Your task to perform on an android device: What is the news today? Image 0: 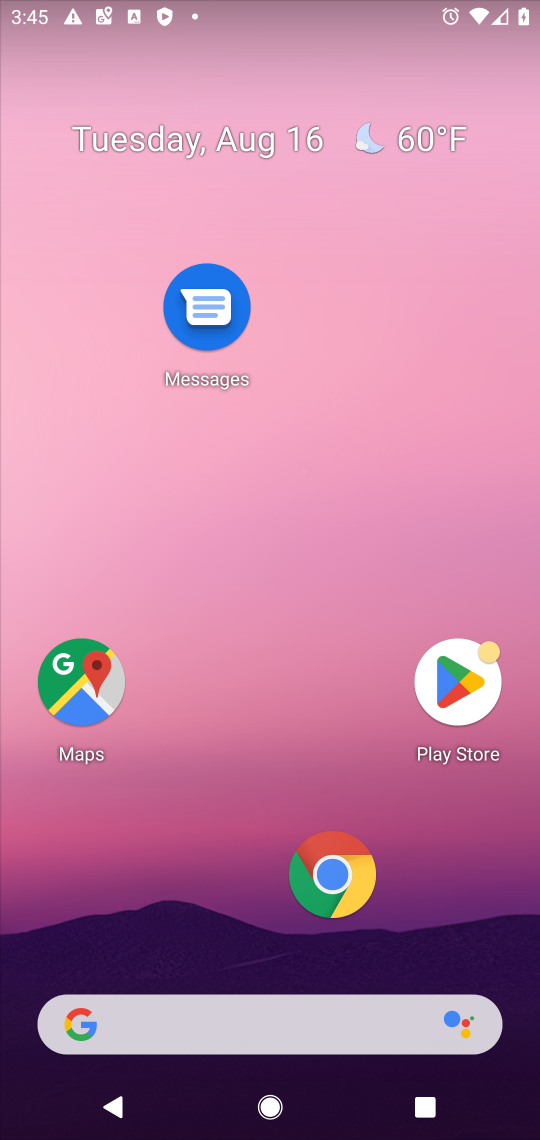
Step 0: click (210, 1035)
Your task to perform on an android device: What is the news today? Image 1: 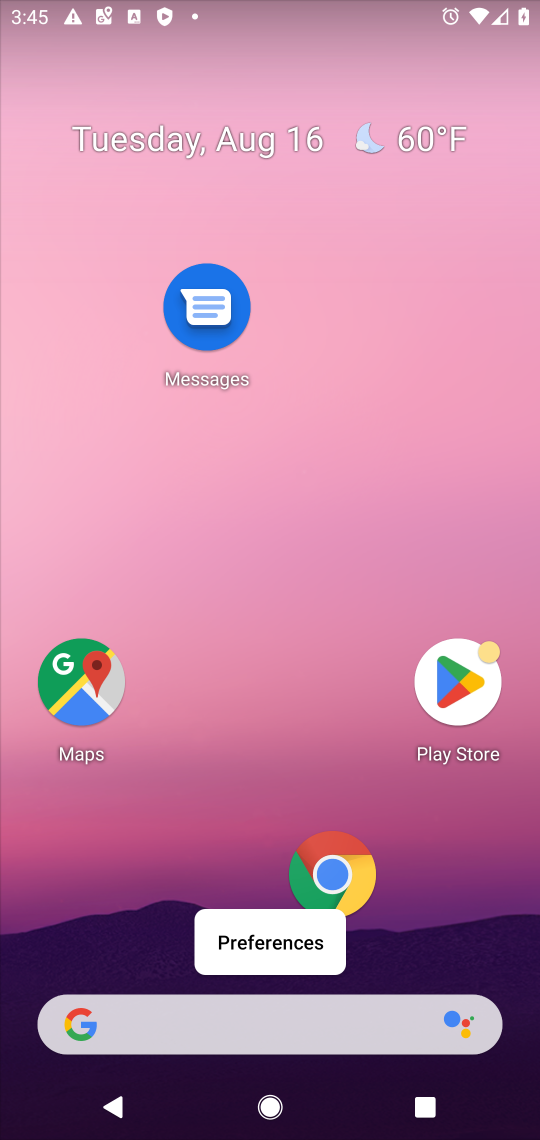
Step 1: click (87, 1025)
Your task to perform on an android device: What is the news today? Image 2: 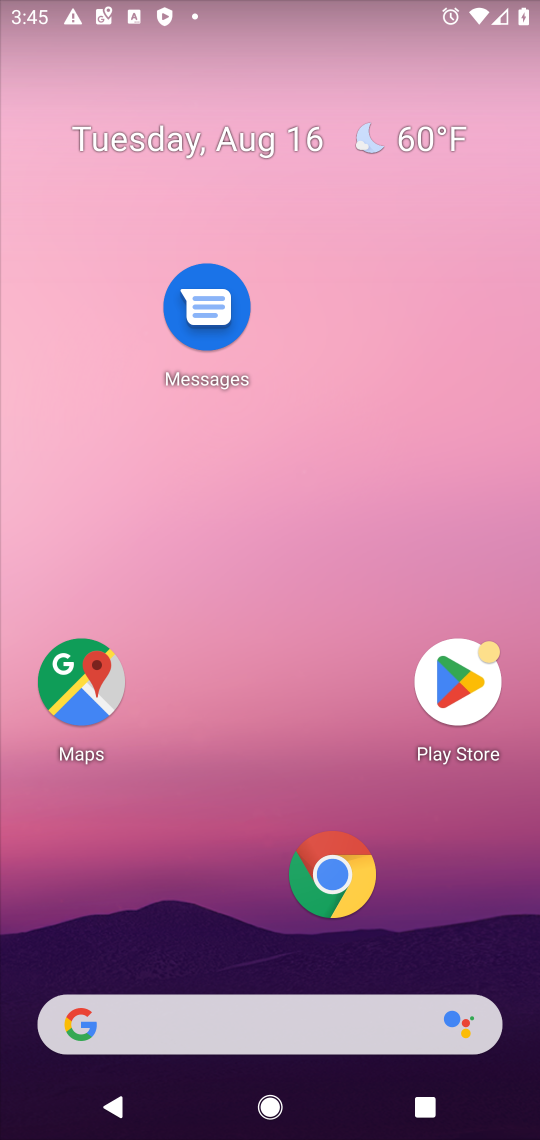
Step 2: click (87, 1025)
Your task to perform on an android device: What is the news today? Image 3: 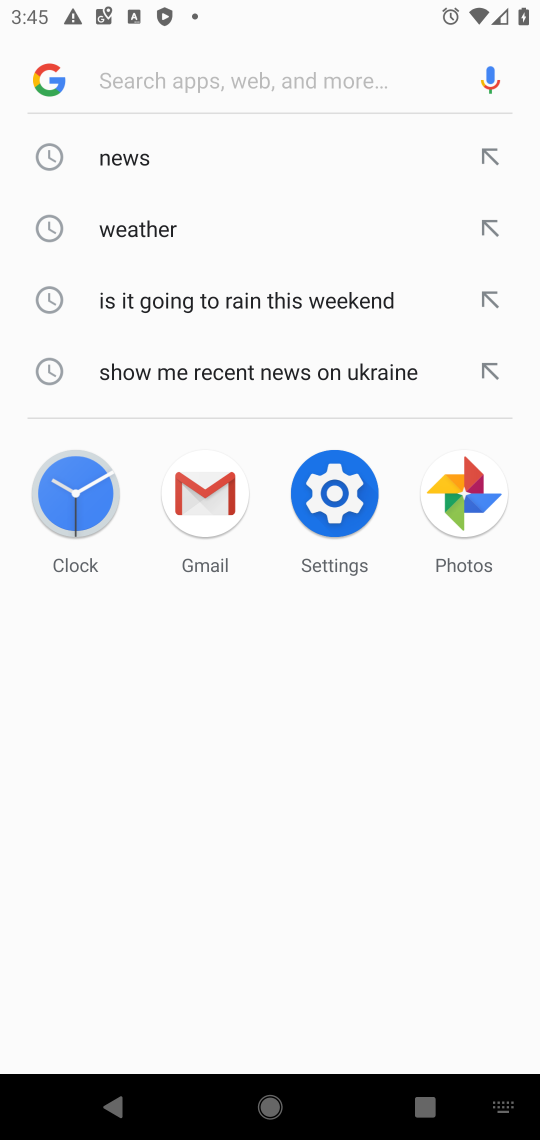
Step 3: click (193, 170)
Your task to perform on an android device: What is the news today? Image 4: 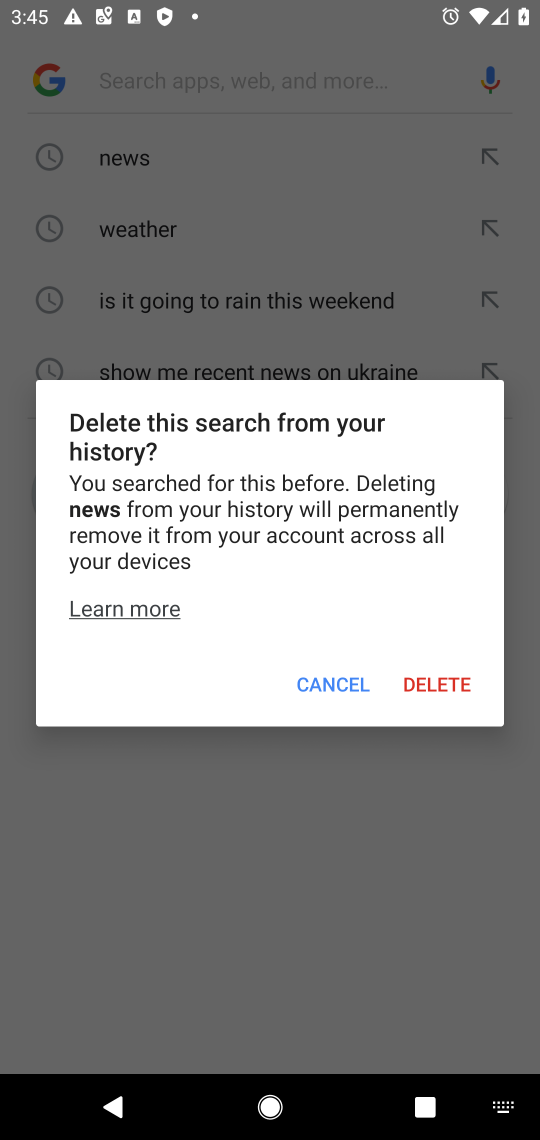
Step 4: click (346, 685)
Your task to perform on an android device: What is the news today? Image 5: 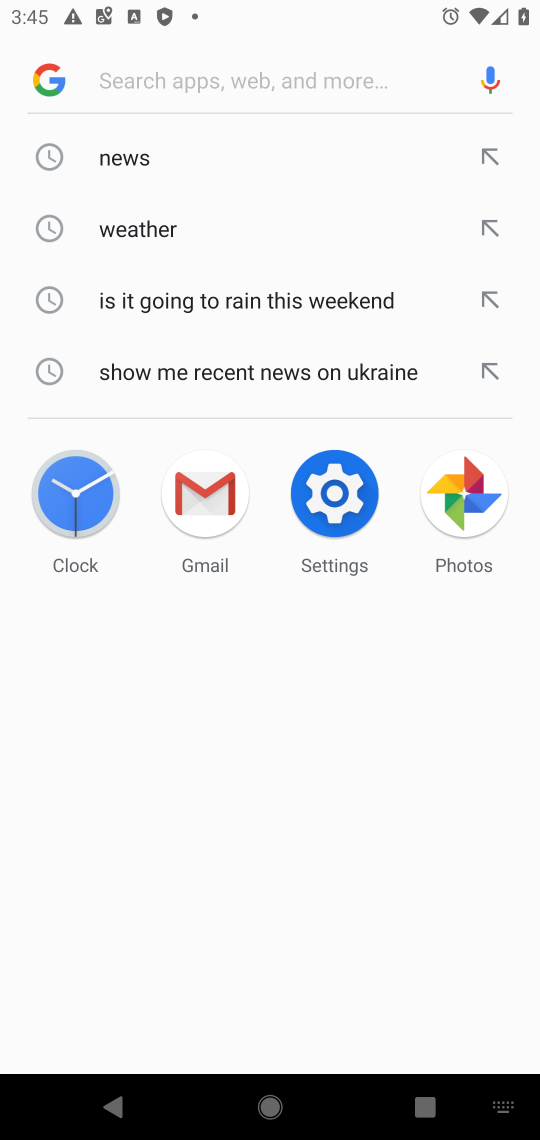
Step 5: click (123, 154)
Your task to perform on an android device: What is the news today? Image 6: 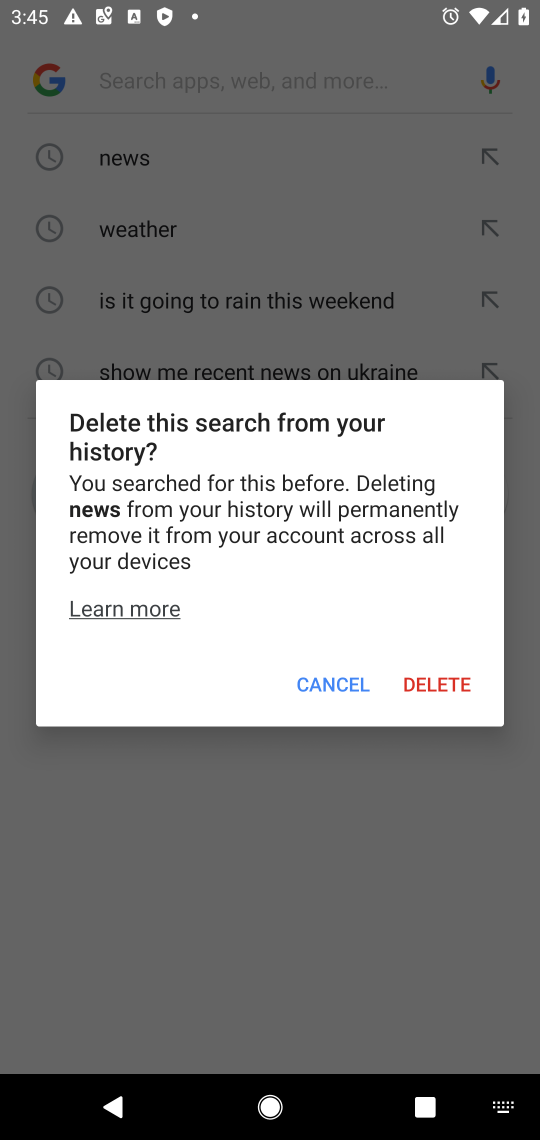
Step 6: click (344, 682)
Your task to perform on an android device: What is the news today? Image 7: 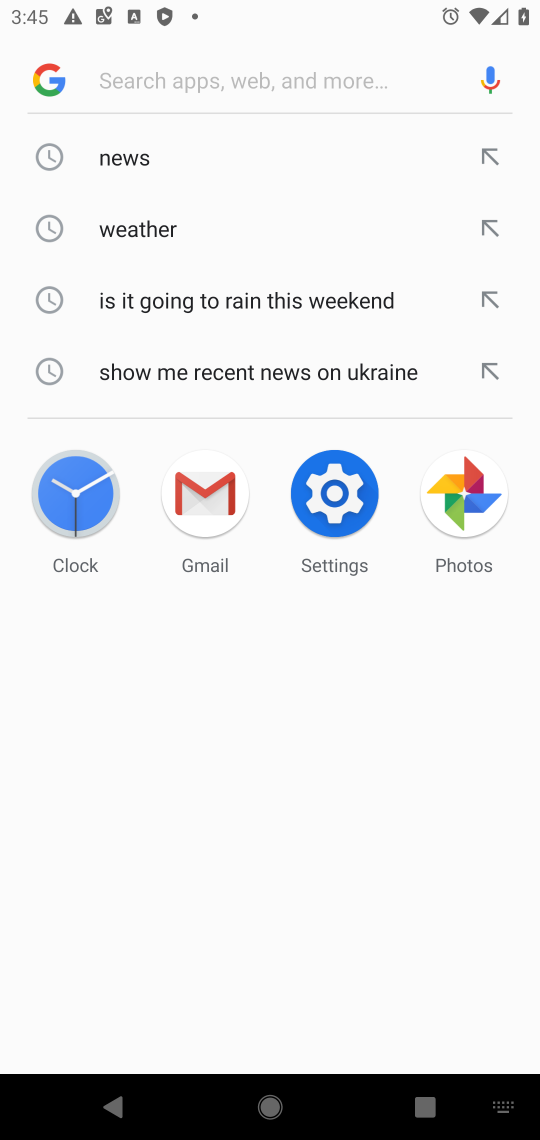
Step 7: click (128, 164)
Your task to perform on an android device: What is the news today? Image 8: 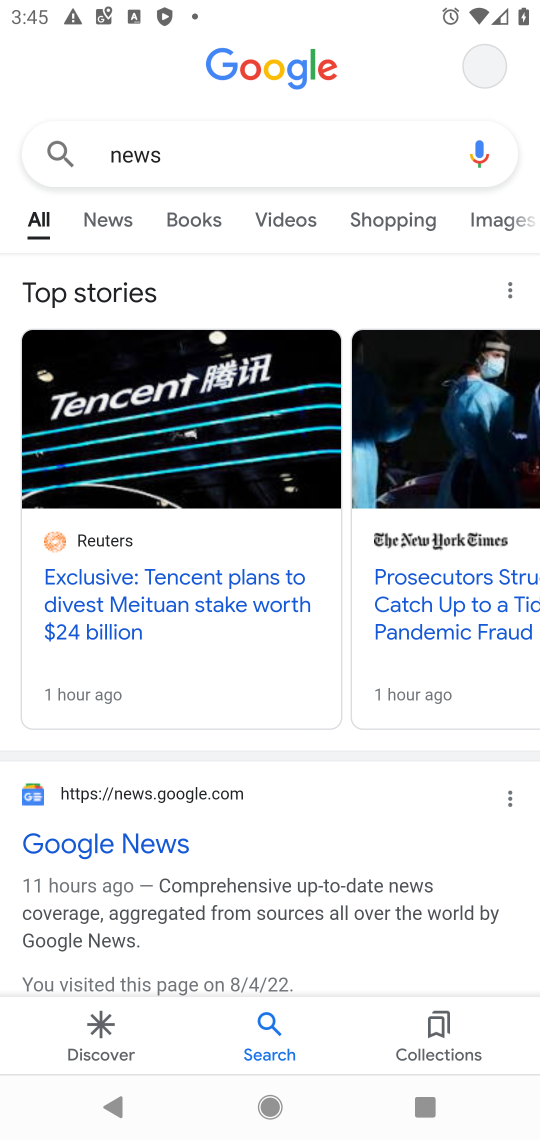
Step 8: task complete